Your task to perform on an android device: check android version Image 0: 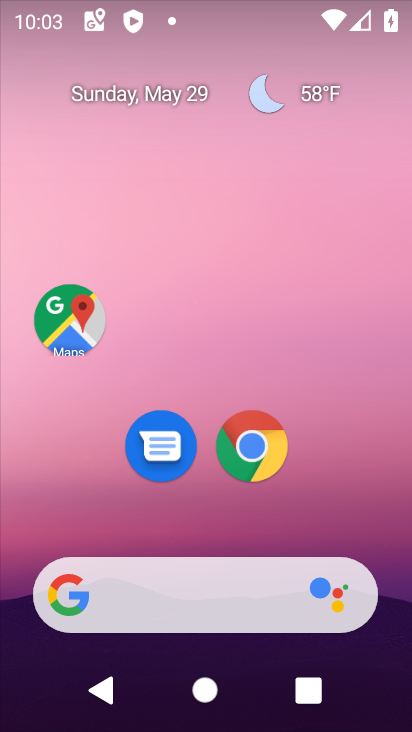
Step 0: drag from (205, 561) to (212, 144)
Your task to perform on an android device: check android version Image 1: 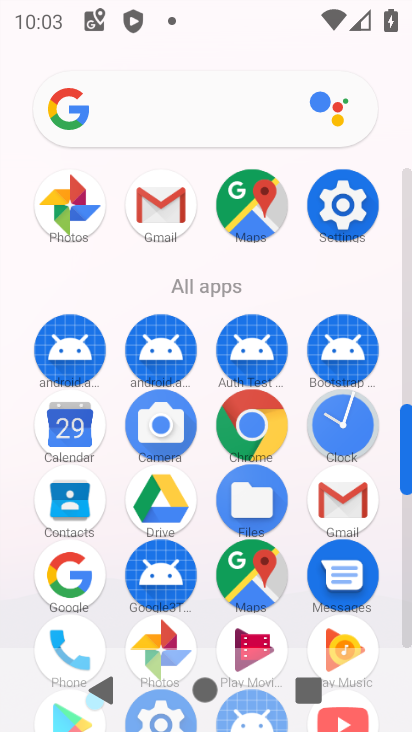
Step 1: click (346, 201)
Your task to perform on an android device: check android version Image 2: 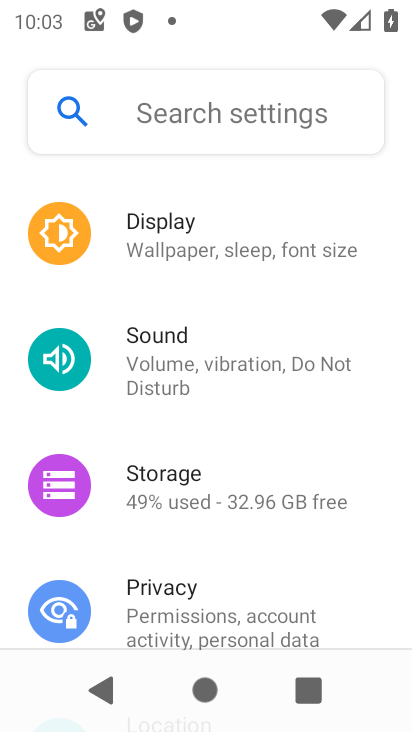
Step 2: drag from (203, 597) to (245, 204)
Your task to perform on an android device: check android version Image 3: 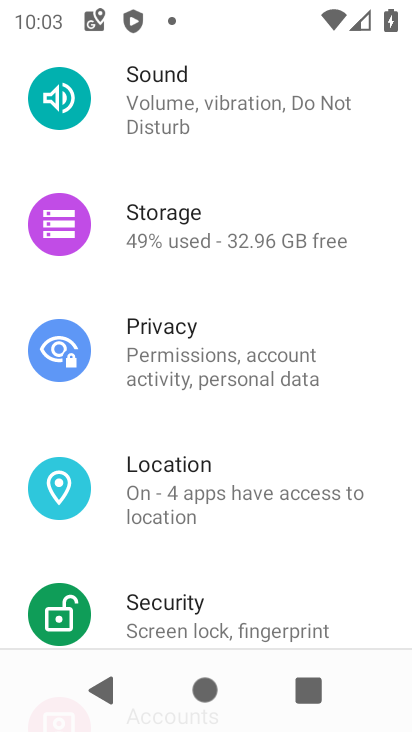
Step 3: drag from (248, 615) to (246, 224)
Your task to perform on an android device: check android version Image 4: 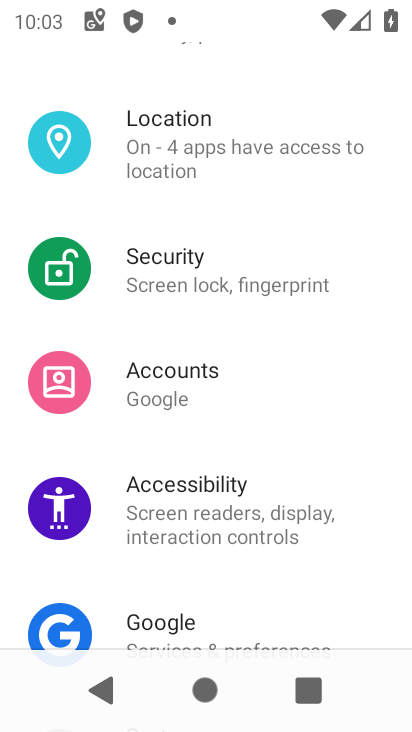
Step 4: drag from (163, 626) to (163, 258)
Your task to perform on an android device: check android version Image 5: 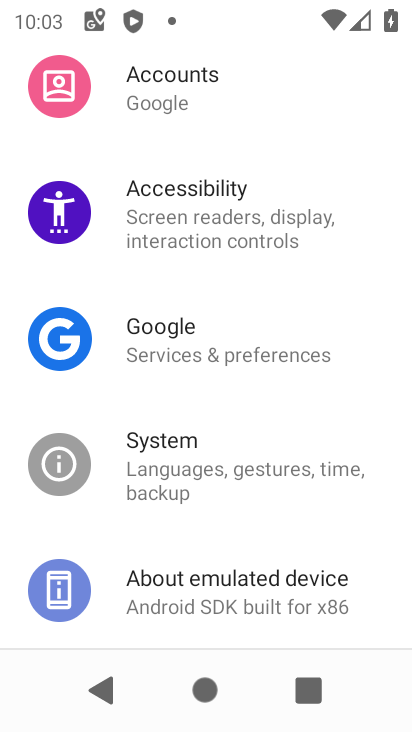
Step 5: click (186, 578)
Your task to perform on an android device: check android version Image 6: 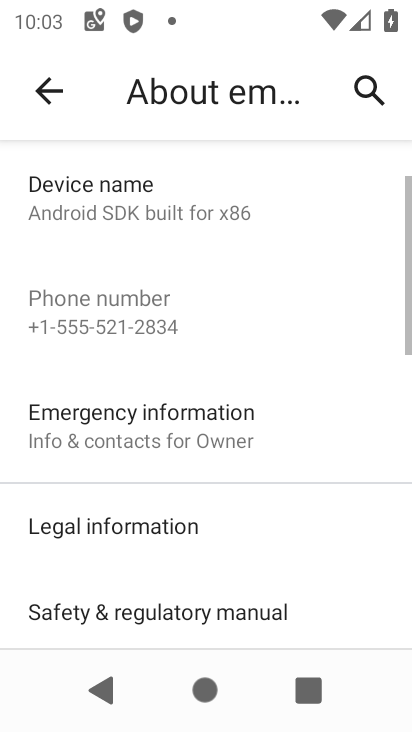
Step 6: task complete